Your task to perform on an android device: find which apps use the phone's location Image 0: 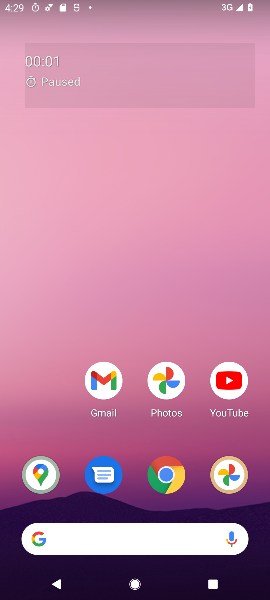
Step 0: drag from (31, 582) to (110, 176)
Your task to perform on an android device: find which apps use the phone's location Image 1: 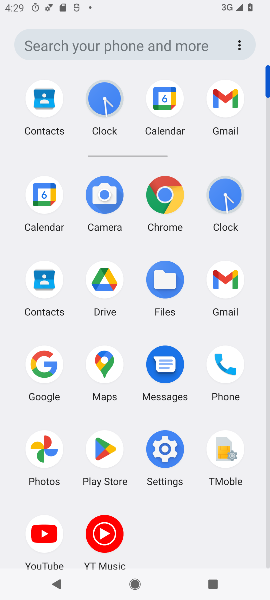
Step 1: click (157, 469)
Your task to perform on an android device: find which apps use the phone's location Image 2: 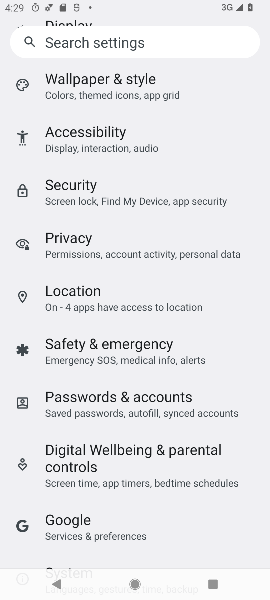
Step 2: drag from (234, 104) to (224, 262)
Your task to perform on an android device: find which apps use the phone's location Image 3: 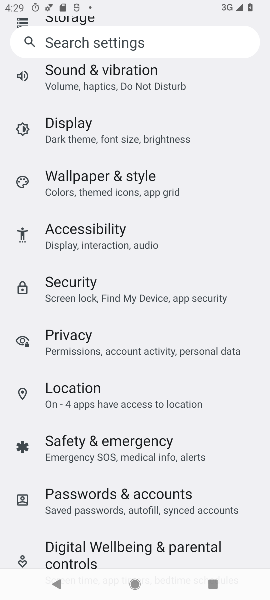
Step 3: click (192, 120)
Your task to perform on an android device: find which apps use the phone's location Image 4: 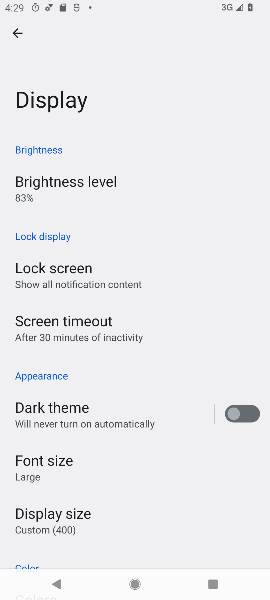
Step 4: click (20, 34)
Your task to perform on an android device: find which apps use the phone's location Image 5: 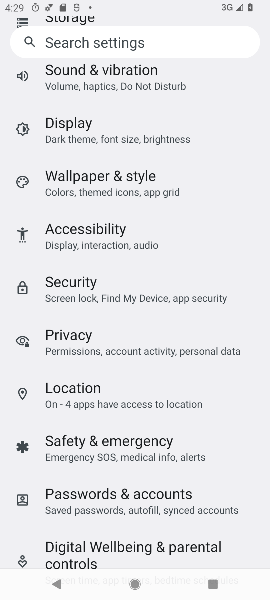
Step 5: click (76, 392)
Your task to perform on an android device: find which apps use the phone's location Image 6: 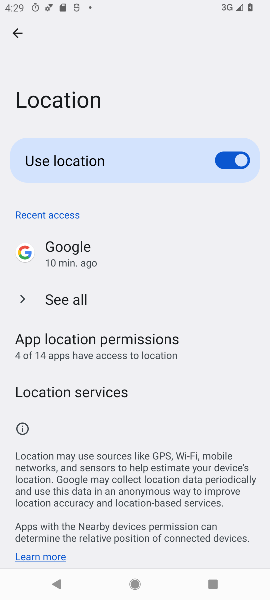
Step 6: click (88, 350)
Your task to perform on an android device: find which apps use the phone's location Image 7: 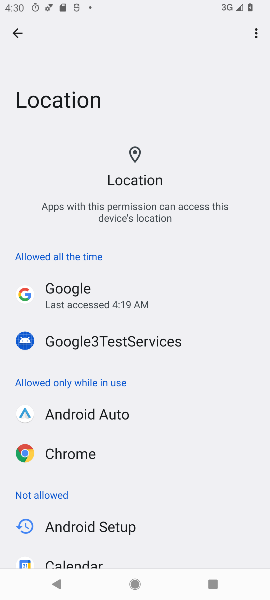
Step 7: task complete